Your task to perform on an android device: change notification settings in the gmail app Image 0: 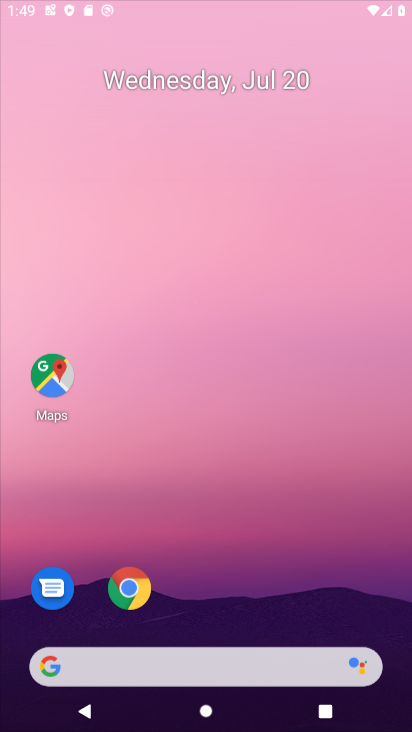
Step 0: click (228, 12)
Your task to perform on an android device: change notification settings in the gmail app Image 1: 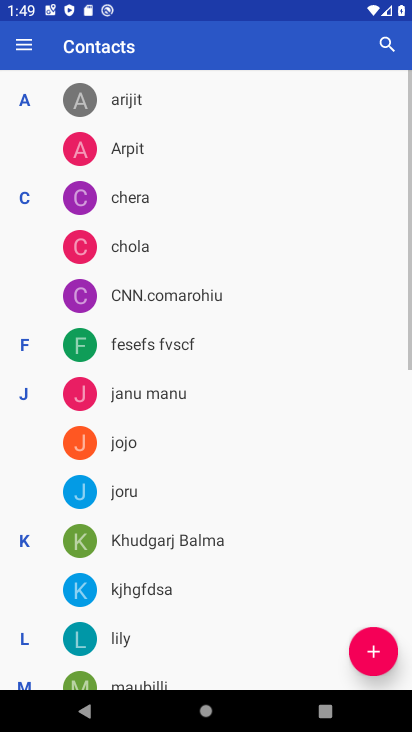
Step 1: press home button
Your task to perform on an android device: change notification settings in the gmail app Image 2: 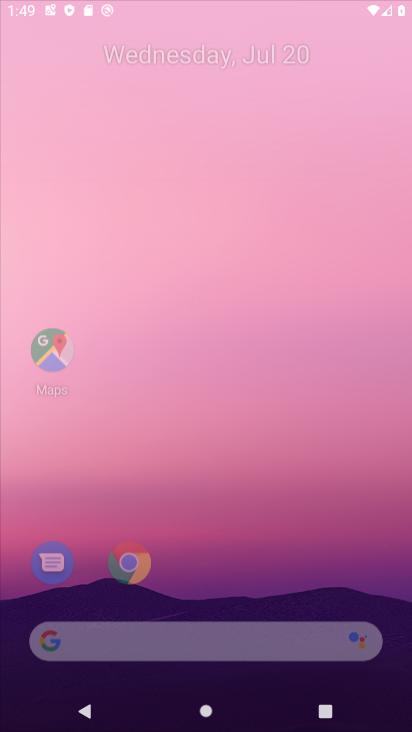
Step 2: drag from (378, 702) to (253, 20)
Your task to perform on an android device: change notification settings in the gmail app Image 3: 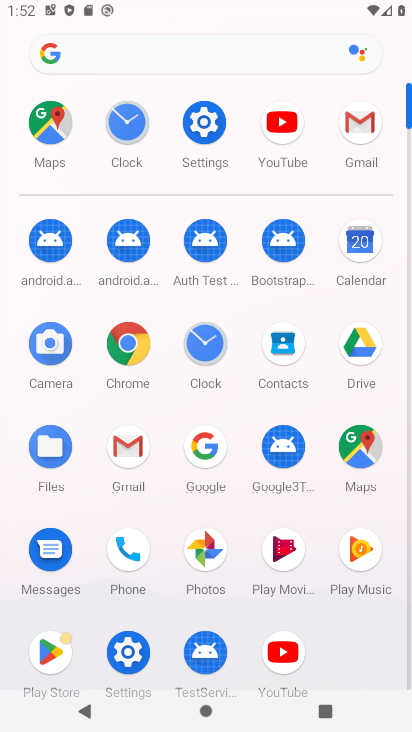
Step 3: click (139, 459)
Your task to perform on an android device: change notification settings in the gmail app Image 4: 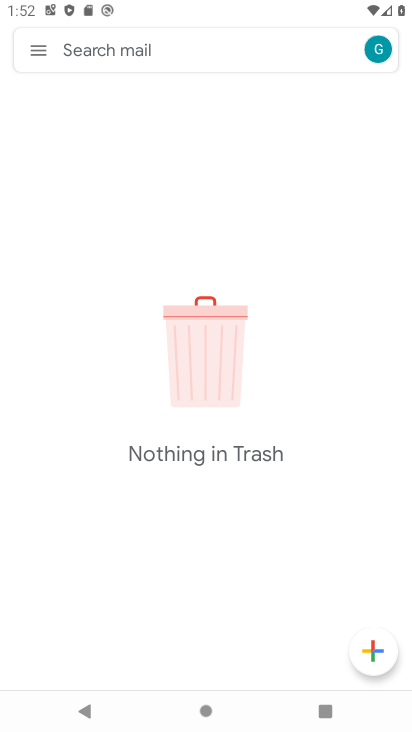
Step 4: click (33, 35)
Your task to perform on an android device: change notification settings in the gmail app Image 5: 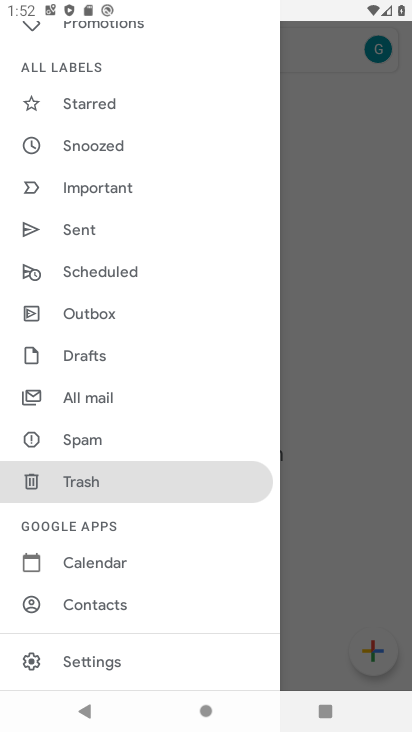
Step 5: click (99, 667)
Your task to perform on an android device: change notification settings in the gmail app Image 6: 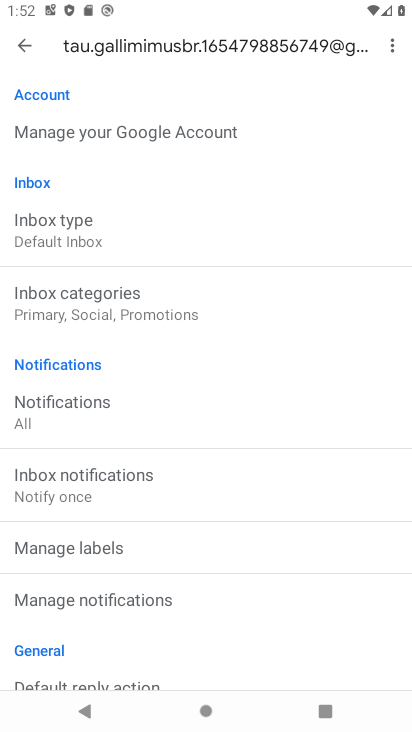
Step 6: click (44, 423)
Your task to perform on an android device: change notification settings in the gmail app Image 7: 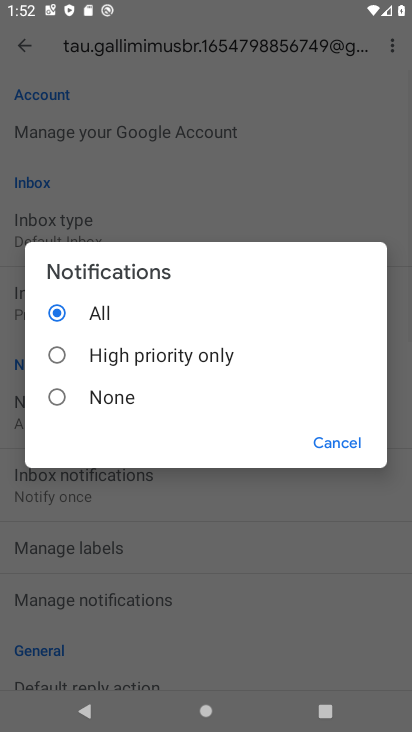
Step 7: click (110, 344)
Your task to perform on an android device: change notification settings in the gmail app Image 8: 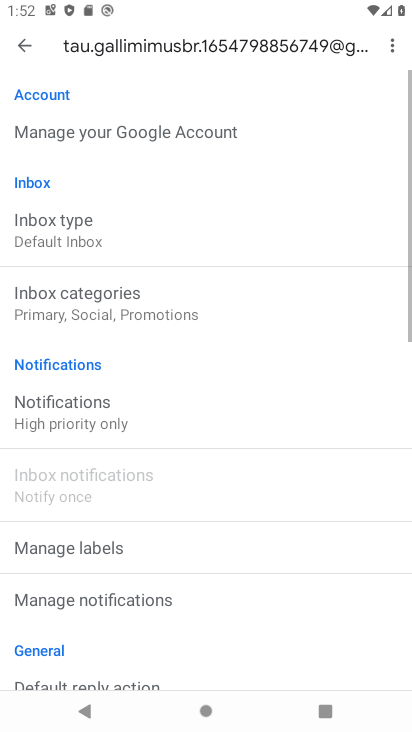
Step 8: task complete